Your task to perform on an android device: open app "Google Duo" Image 0: 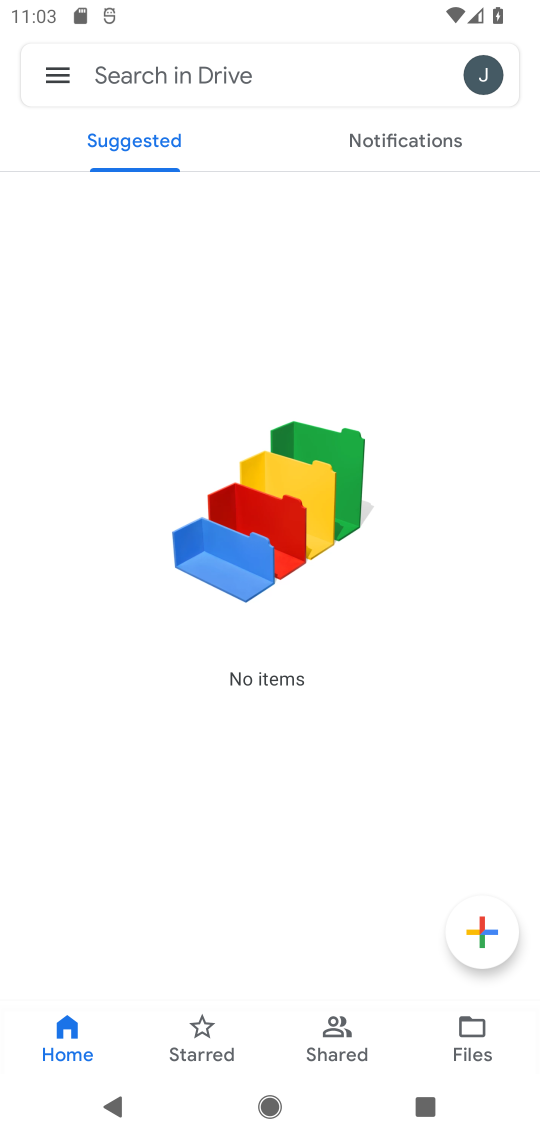
Step 0: press home button
Your task to perform on an android device: open app "Google Duo" Image 1: 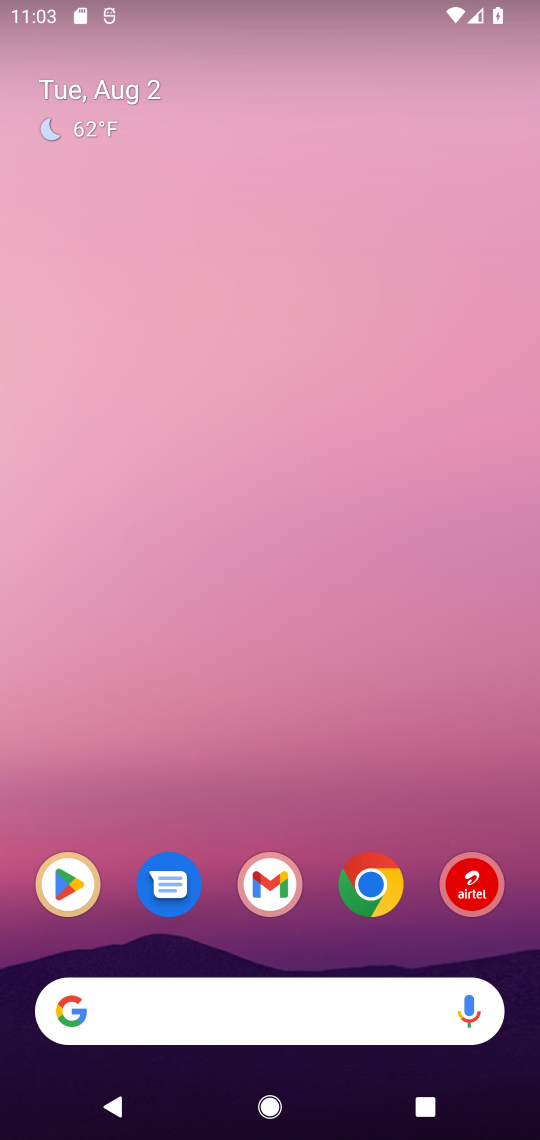
Step 1: click (57, 896)
Your task to perform on an android device: open app "Google Duo" Image 2: 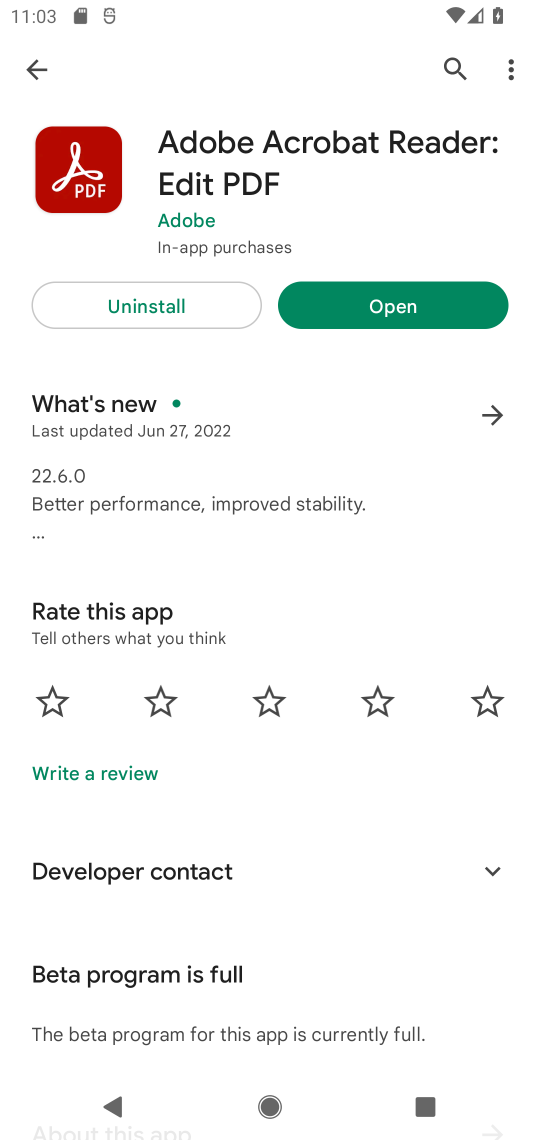
Step 2: click (34, 78)
Your task to perform on an android device: open app "Google Duo" Image 3: 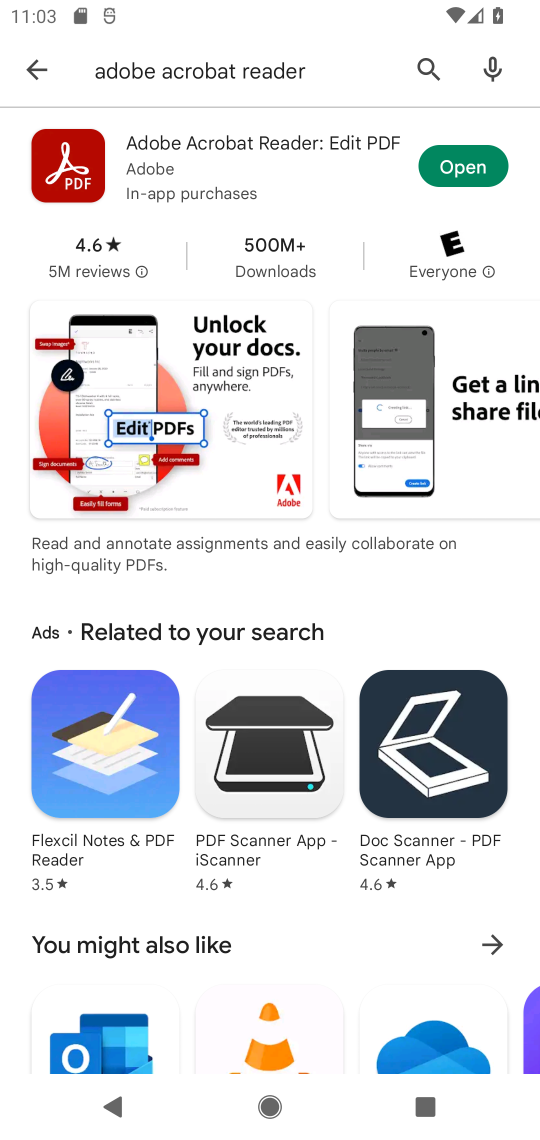
Step 3: click (218, 82)
Your task to perform on an android device: open app "Google Duo" Image 4: 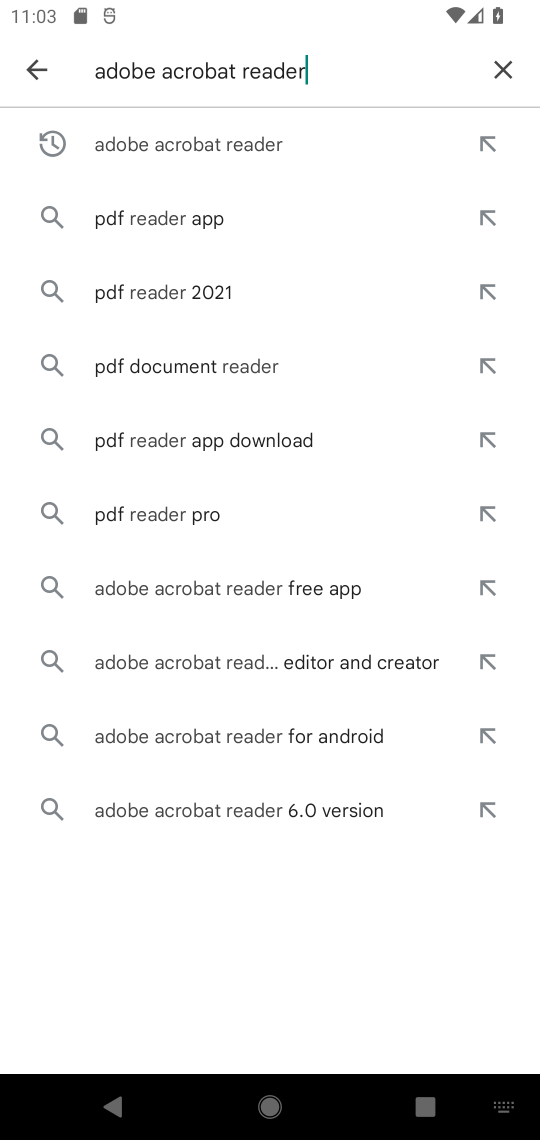
Step 4: click (506, 71)
Your task to perform on an android device: open app "Google Duo" Image 5: 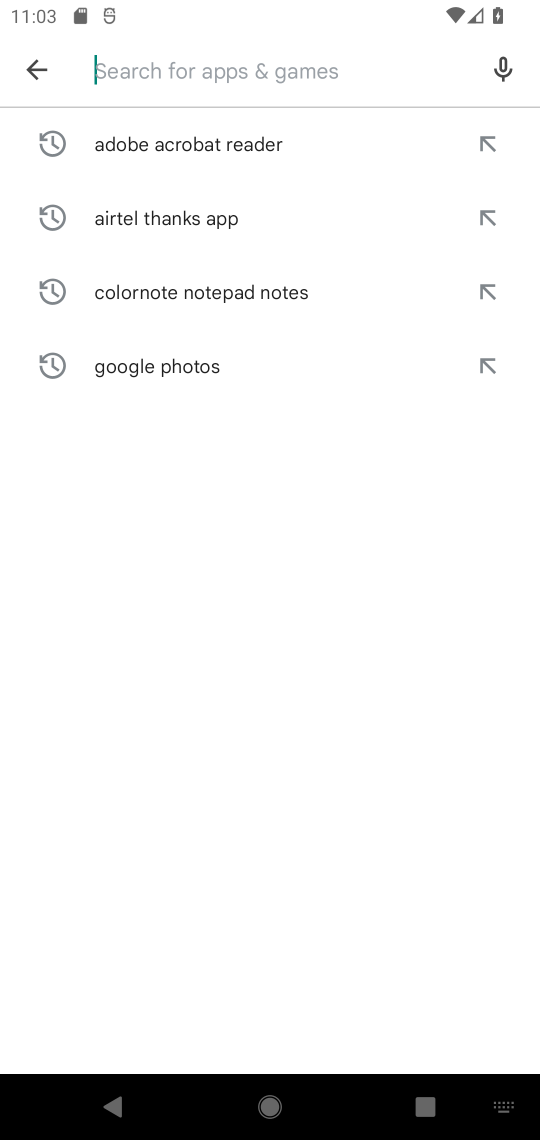
Step 5: type "google duo"
Your task to perform on an android device: open app "Google Duo" Image 6: 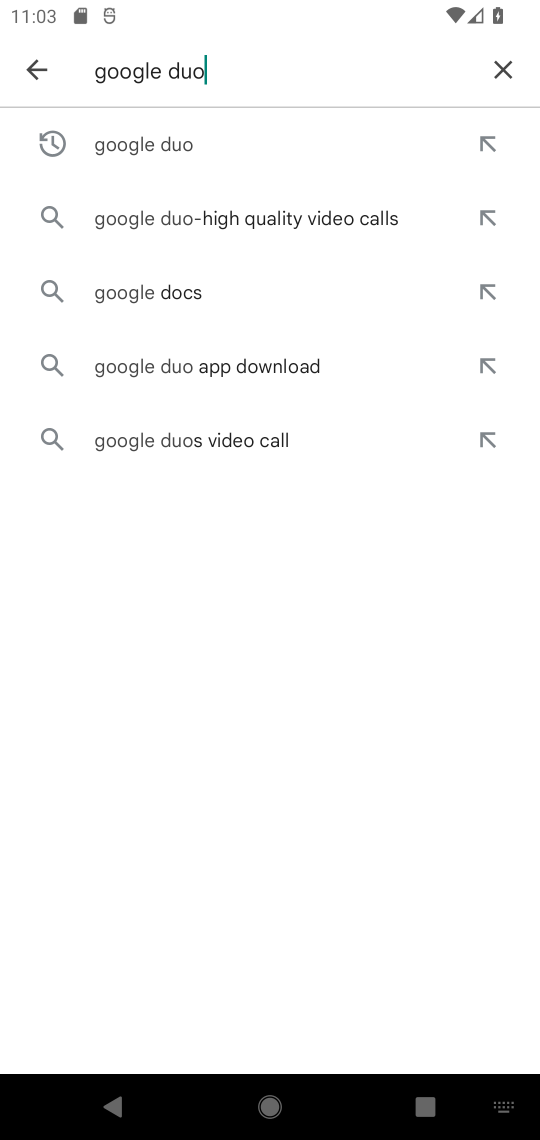
Step 6: click (172, 140)
Your task to perform on an android device: open app "Google Duo" Image 7: 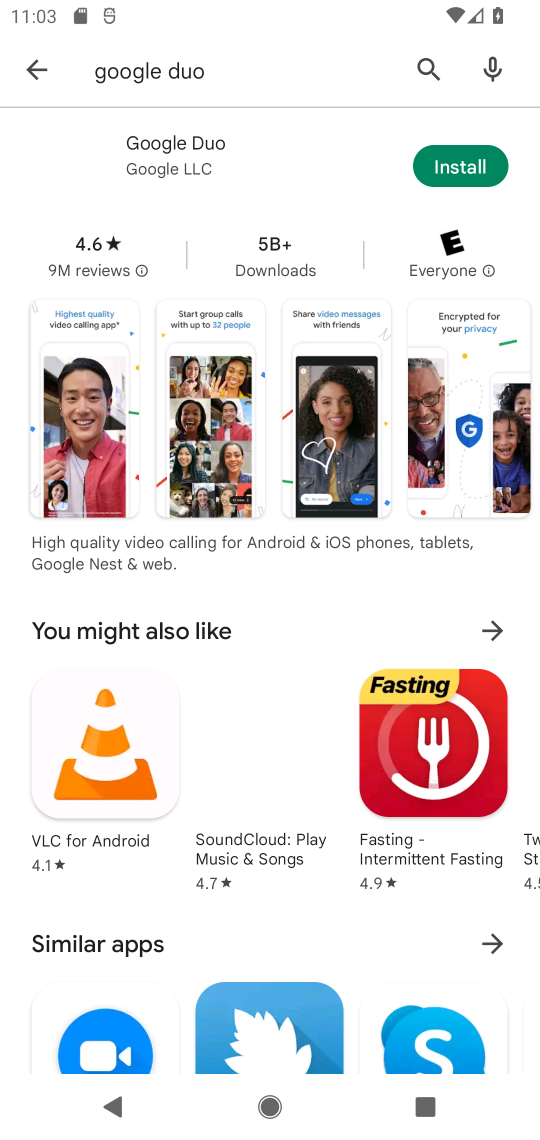
Step 7: task complete